Your task to perform on an android device: What's the weather going to be tomorrow? Image 0: 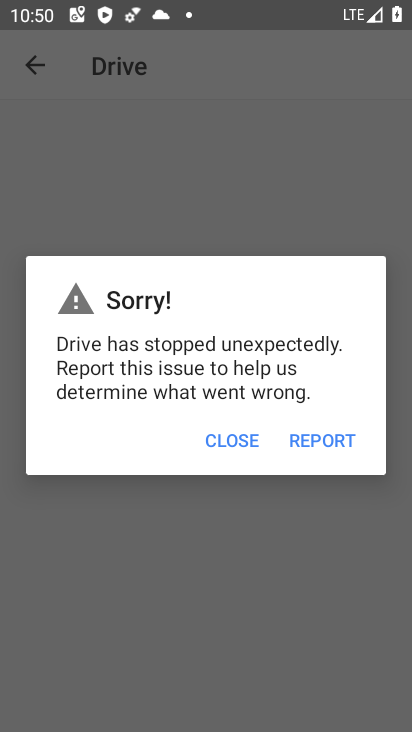
Step 0: drag from (263, 603) to (386, 449)
Your task to perform on an android device: What's the weather going to be tomorrow? Image 1: 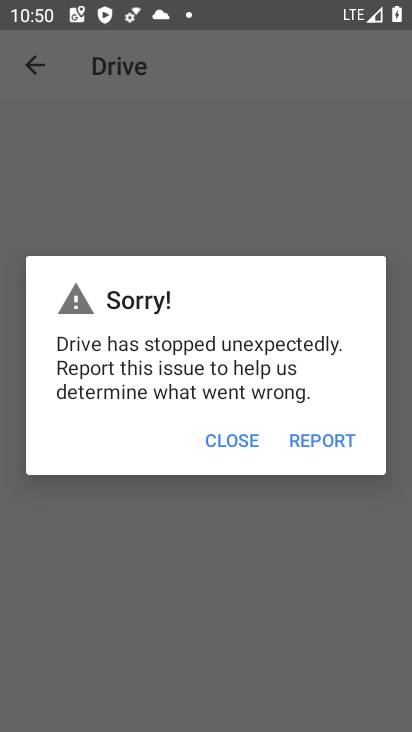
Step 1: press home button
Your task to perform on an android device: What's the weather going to be tomorrow? Image 2: 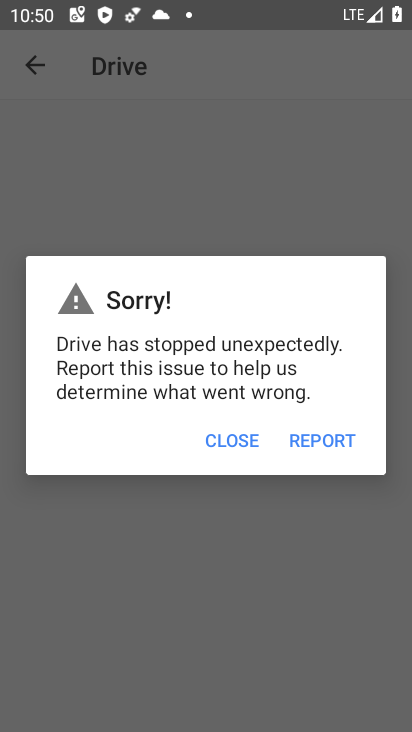
Step 2: click (386, 449)
Your task to perform on an android device: What's the weather going to be tomorrow? Image 3: 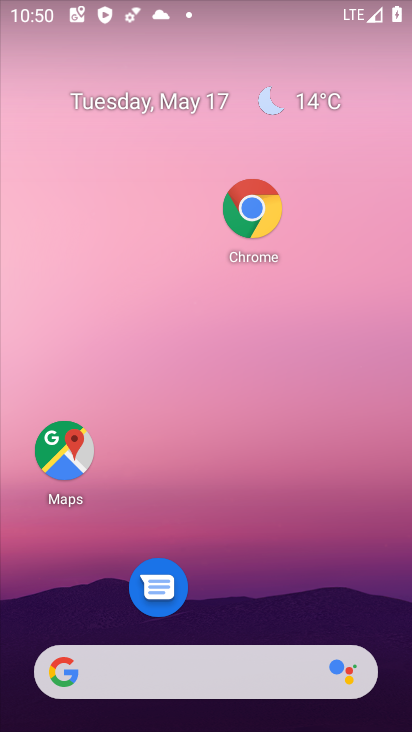
Step 3: click (315, 108)
Your task to perform on an android device: What's the weather going to be tomorrow? Image 4: 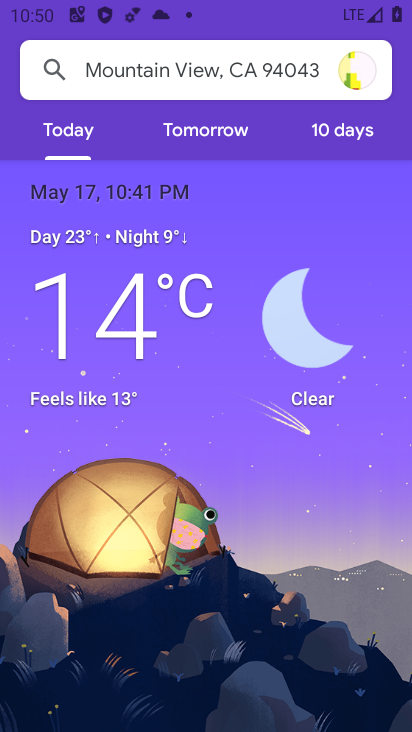
Step 4: click (215, 128)
Your task to perform on an android device: What's the weather going to be tomorrow? Image 5: 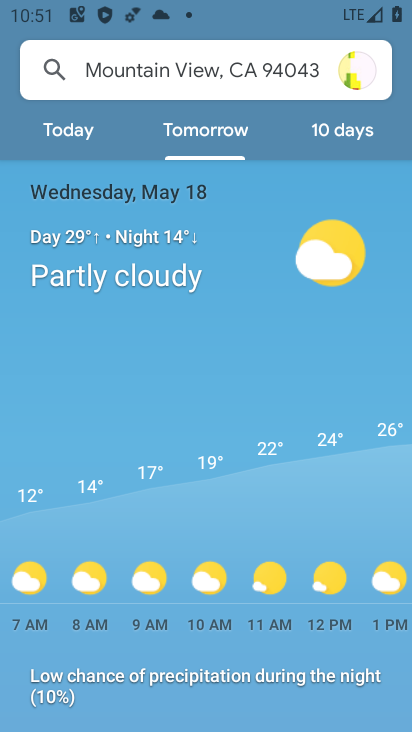
Step 5: task complete